Your task to perform on an android device: turn off notifications settings in the gmail app Image 0: 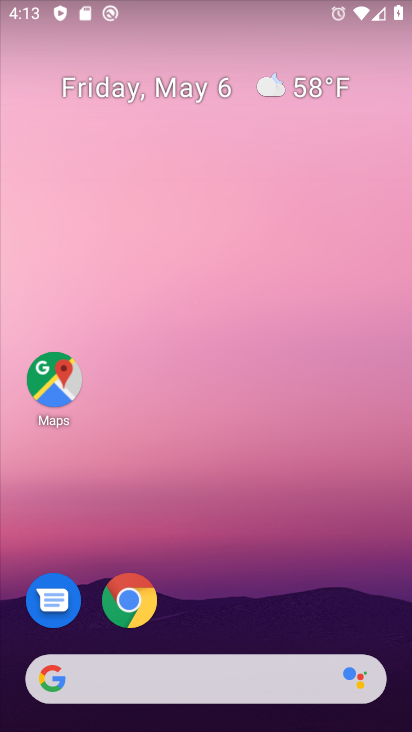
Step 0: drag from (219, 645) to (313, 40)
Your task to perform on an android device: turn off notifications settings in the gmail app Image 1: 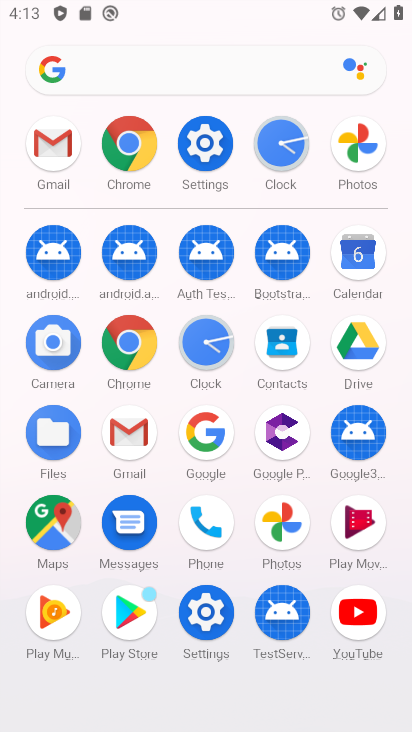
Step 1: click (139, 429)
Your task to perform on an android device: turn off notifications settings in the gmail app Image 2: 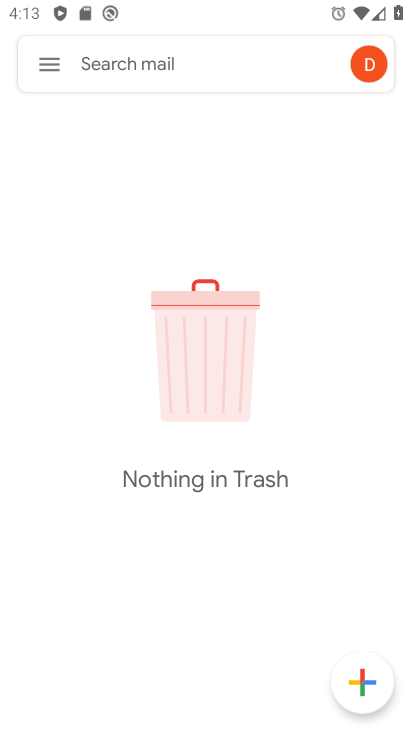
Step 2: click (57, 72)
Your task to perform on an android device: turn off notifications settings in the gmail app Image 3: 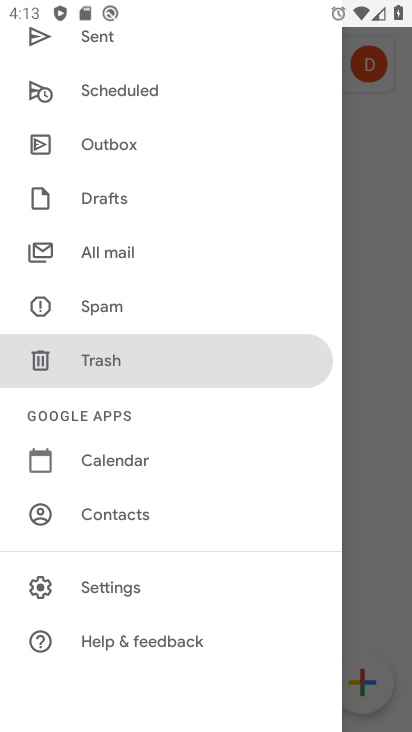
Step 3: click (115, 593)
Your task to perform on an android device: turn off notifications settings in the gmail app Image 4: 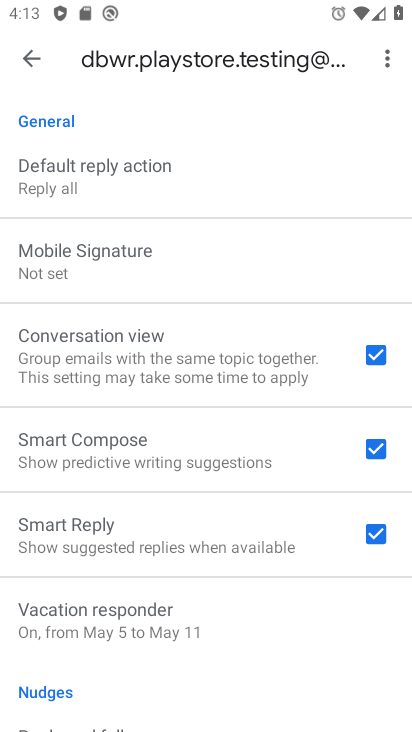
Step 4: click (32, 51)
Your task to perform on an android device: turn off notifications settings in the gmail app Image 5: 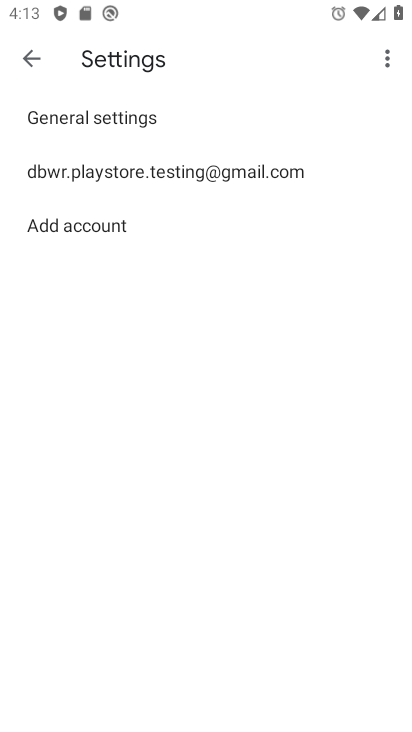
Step 5: click (84, 127)
Your task to perform on an android device: turn off notifications settings in the gmail app Image 6: 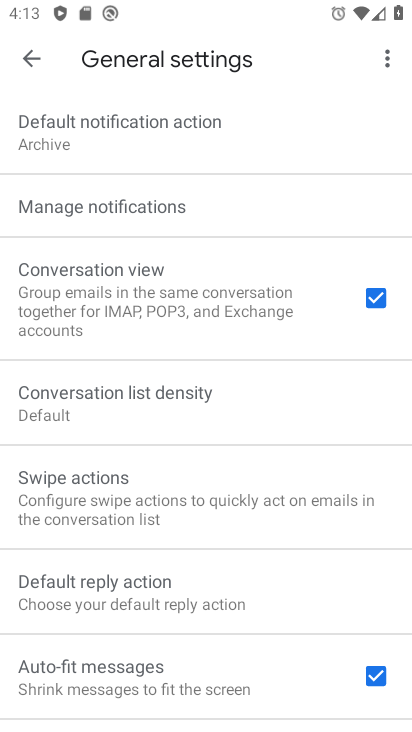
Step 6: click (107, 209)
Your task to perform on an android device: turn off notifications settings in the gmail app Image 7: 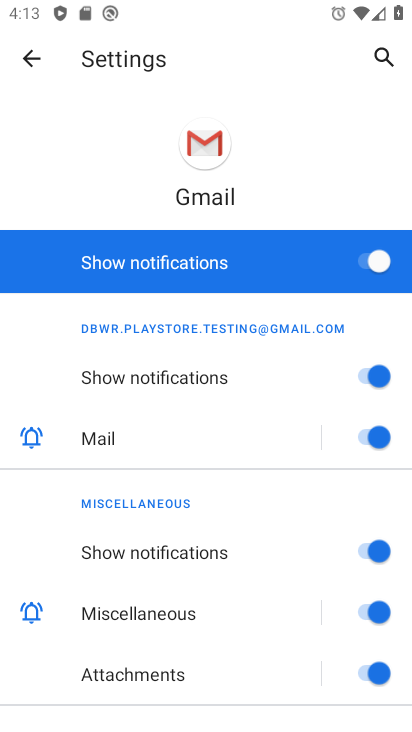
Step 7: click (349, 256)
Your task to perform on an android device: turn off notifications settings in the gmail app Image 8: 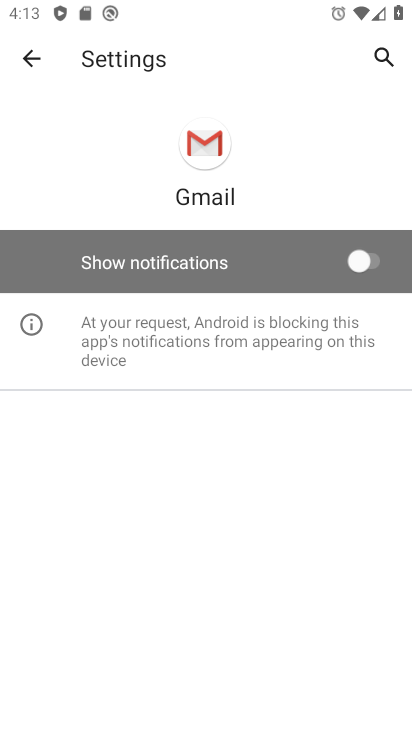
Step 8: task complete